Your task to perform on an android device: turn on notifications settings in the gmail app Image 0: 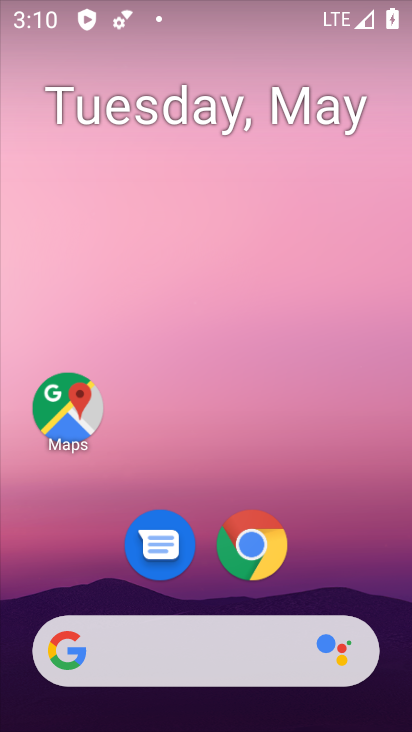
Step 0: drag from (343, 570) to (303, 281)
Your task to perform on an android device: turn on notifications settings in the gmail app Image 1: 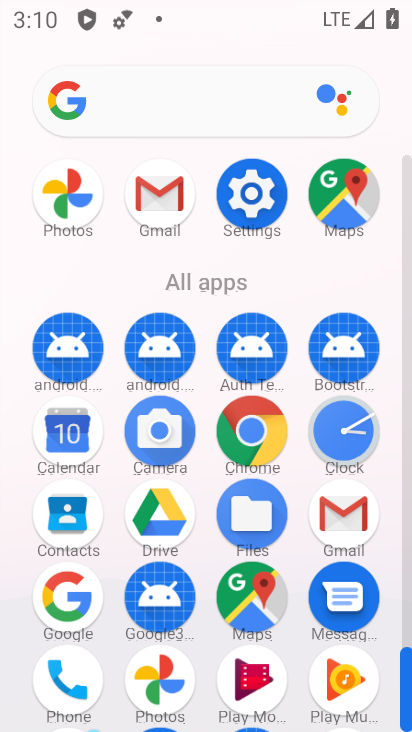
Step 1: click (360, 529)
Your task to perform on an android device: turn on notifications settings in the gmail app Image 2: 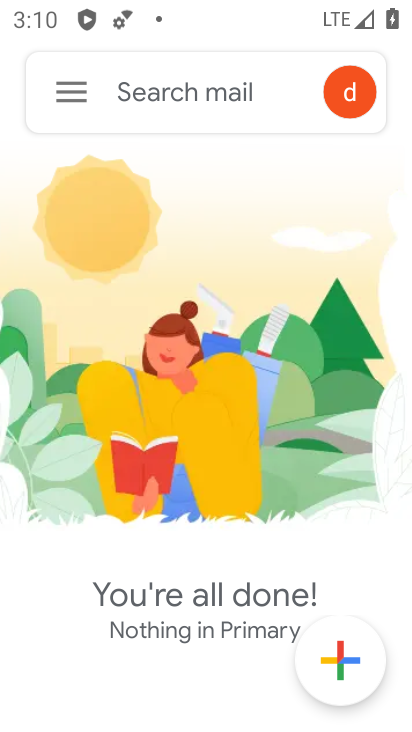
Step 2: click (74, 85)
Your task to perform on an android device: turn on notifications settings in the gmail app Image 3: 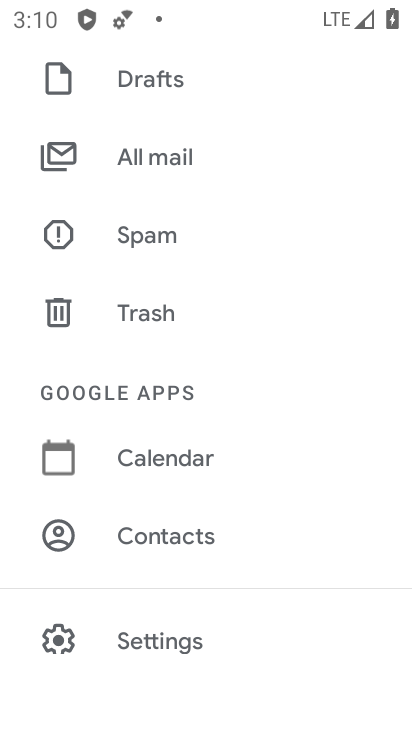
Step 3: click (203, 638)
Your task to perform on an android device: turn on notifications settings in the gmail app Image 4: 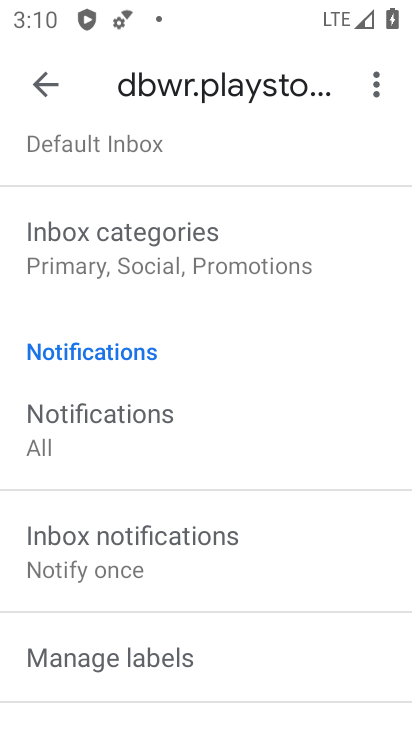
Step 4: click (157, 419)
Your task to perform on an android device: turn on notifications settings in the gmail app Image 5: 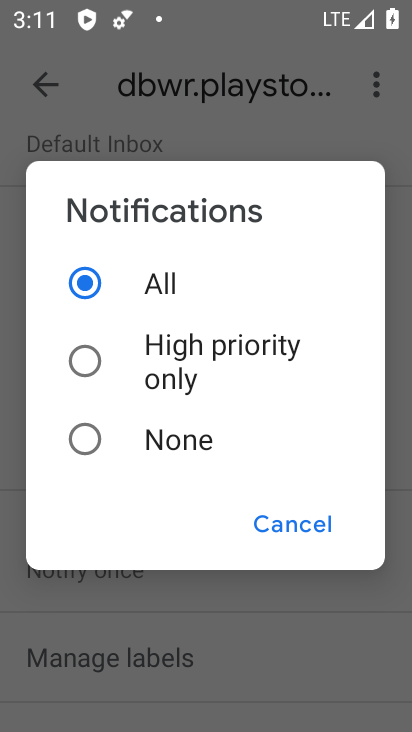
Step 5: click (182, 371)
Your task to perform on an android device: turn on notifications settings in the gmail app Image 6: 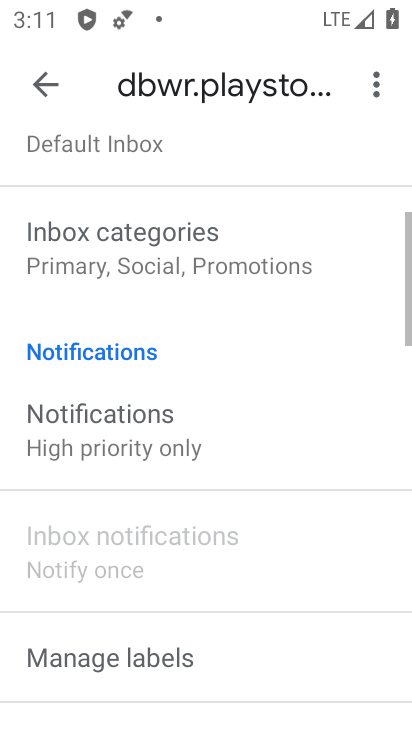
Step 6: task complete